Your task to perform on an android device: clear all cookies in the chrome app Image 0: 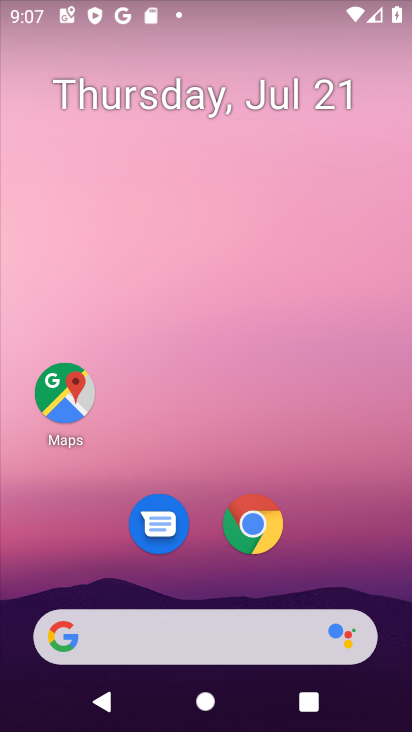
Step 0: press home button
Your task to perform on an android device: clear all cookies in the chrome app Image 1: 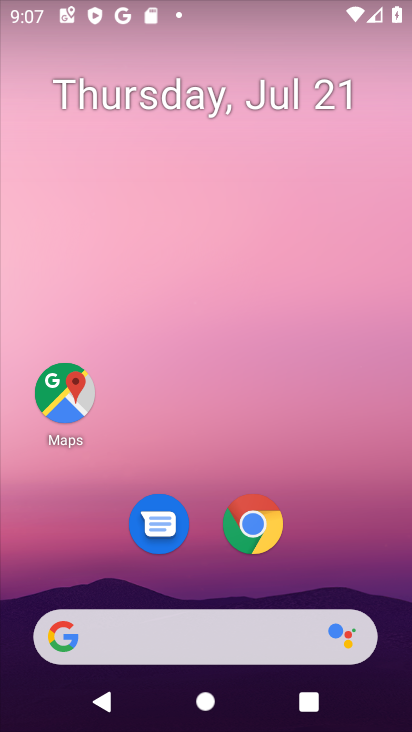
Step 1: click (250, 526)
Your task to perform on an android device: clear all cookies in the chrome app Image 2: 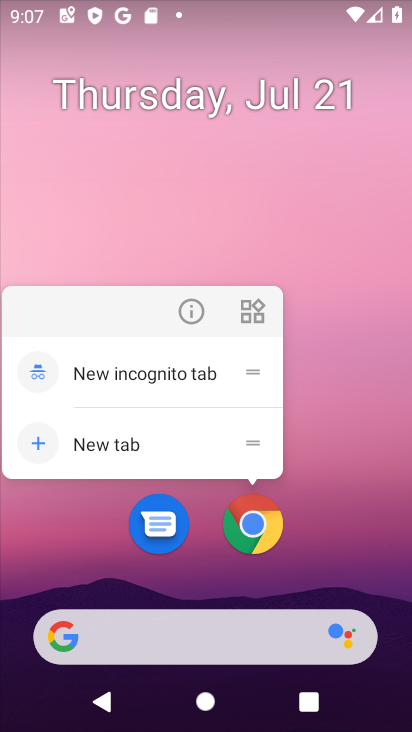
Step 2: click (250, 526)
Your task to perform on an android device: clear all cookies in the chrome app Image 3: 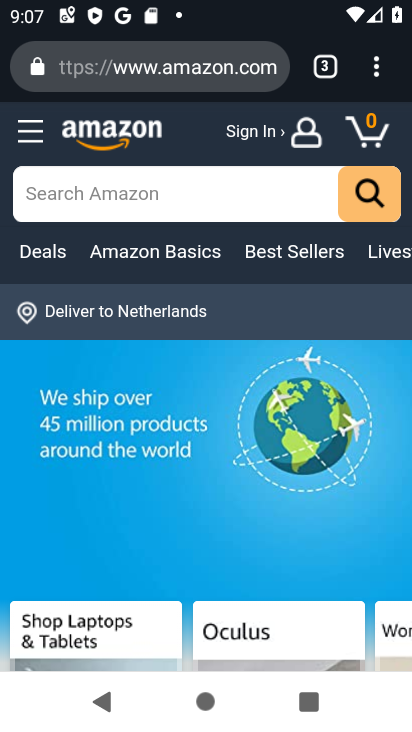
Step 3: drag from (373, 60) to (228, 511)
Your task to perform on an android device: clear all cookies in the chrome app Image 4: 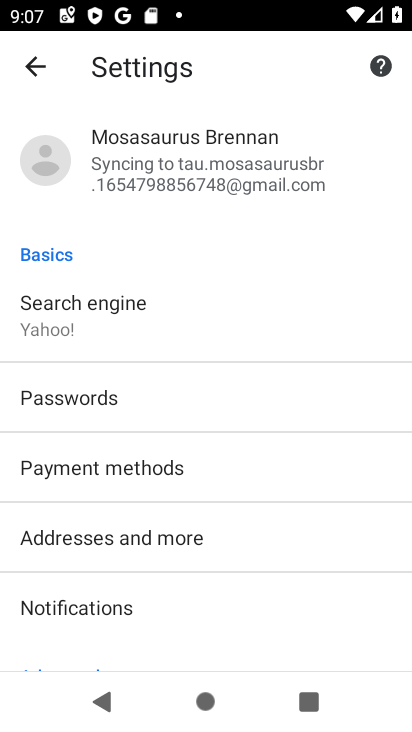
Step 4: drag from (188, 565) to (274, 314)
Your task to perform on an android device: clear all cookies in the chrome app Image 5: 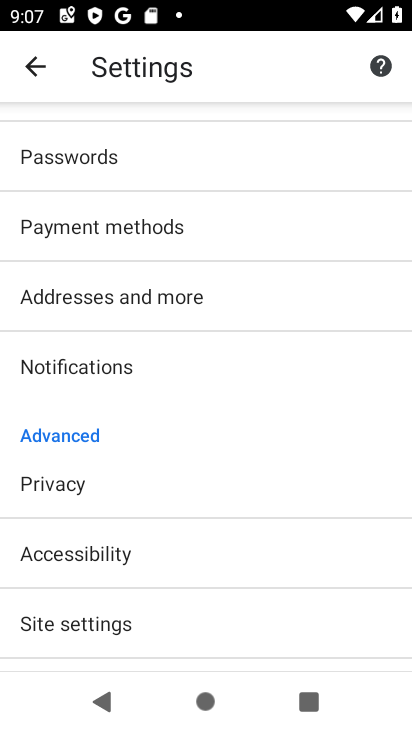
Step 5: click (94, 486)
Your task to perform on an android device: clear all cookies in the chrome app Image 6: 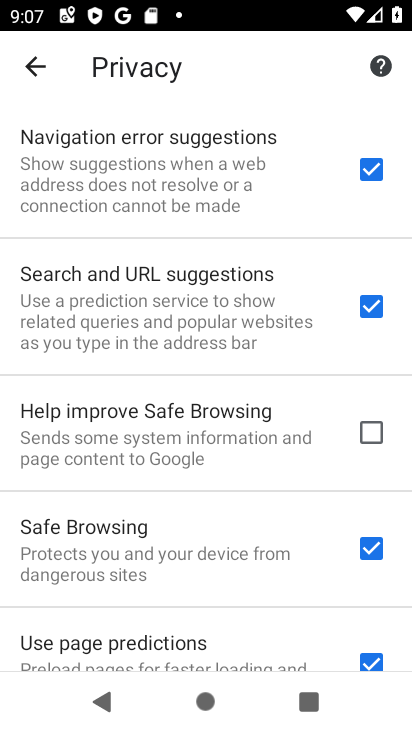
Step 6: drag from (118, 563) to (250, 302)
Your task to perform on an android device: clear all cookies in the chrome app Image 7: 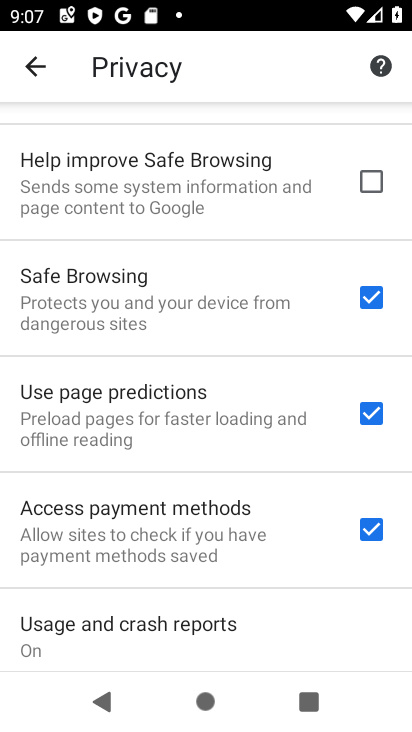
Step 7: drag from (151, 632) to (292, 223)
Your task to perform on an android device: clear all cookies in the chrome app Image 8: 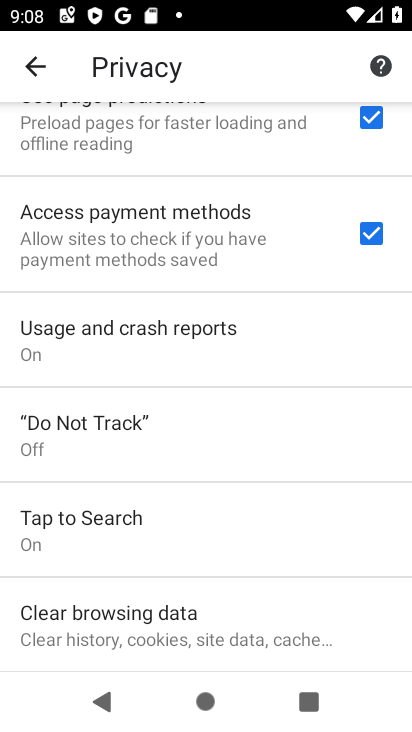
Step 8: click (186, 620)
Your task to perform on an android device: clear all cookies in the chrome app Image 9: 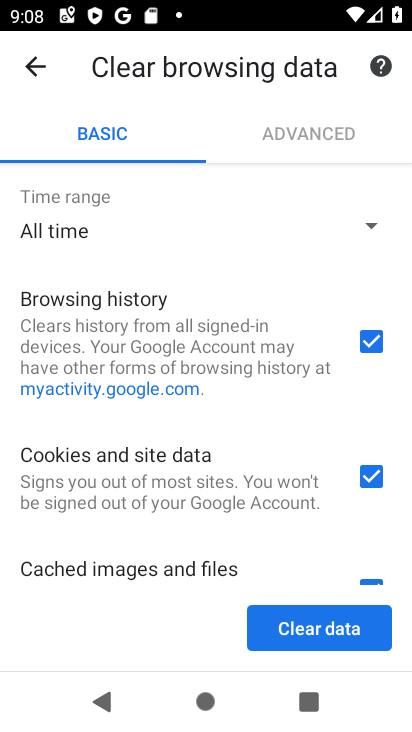
Step 9: drag from (204, 568) to (299, 235)
Your task to perform on an android device: clear all cookies in the chrome app Image 10: 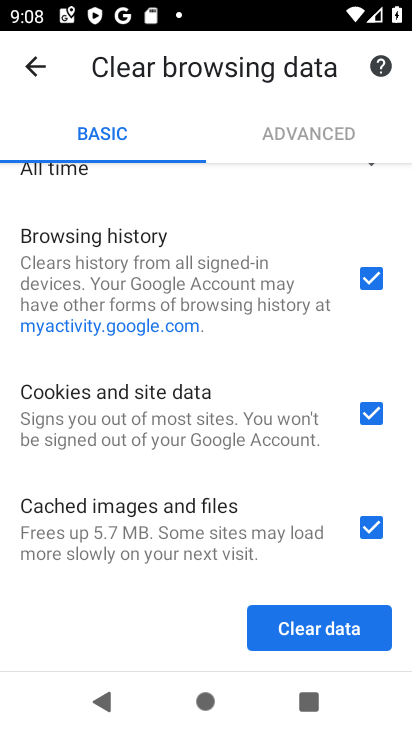
Step 10: drag from (172, 569) to (287, 365)
Your task to perform on an android device: clear all cookies in the chrome app Image 11: 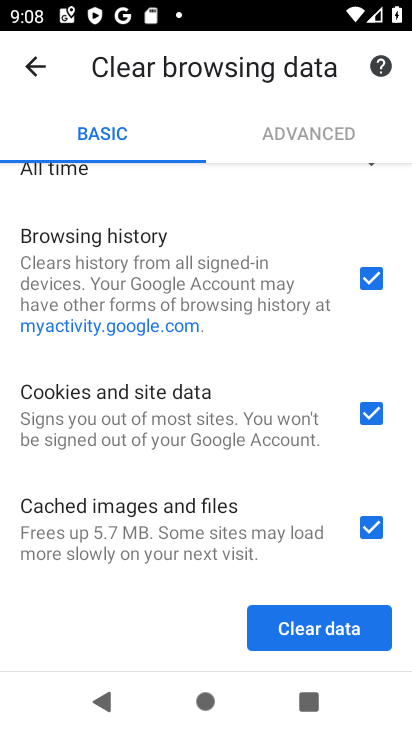
Step 11: click (361, 279)
Your task to perform on an android device: clear all cookies in the chrome app Image 12: 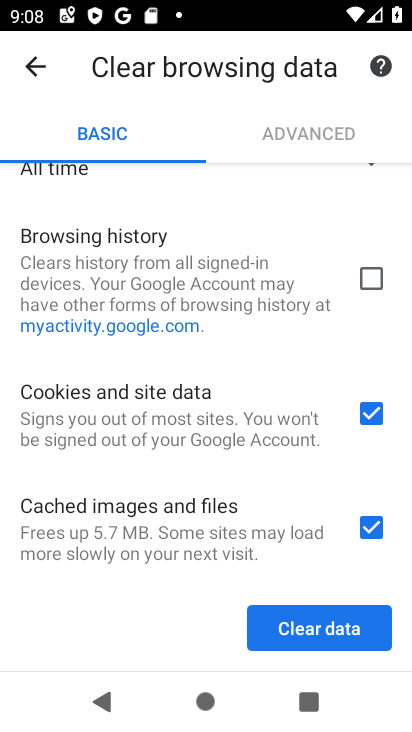
Step 12: click (371, 527)
Your task to perform on an android device: clear all cookies in the chrome app Image 13: 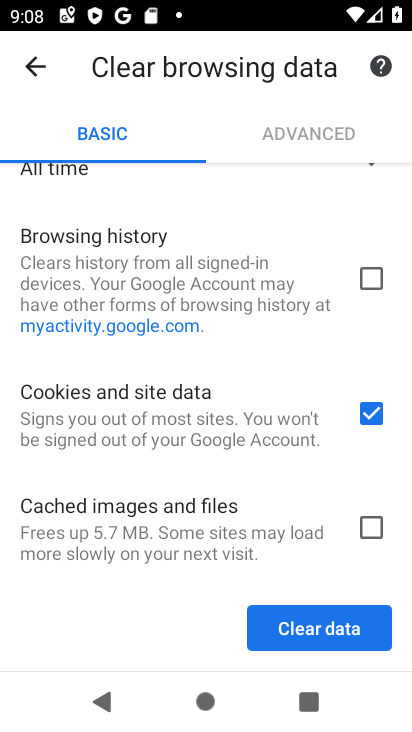
Step 13: click (303, 633)
Your task to perform on an android device: clear all cookies in the chrome app Image 14: 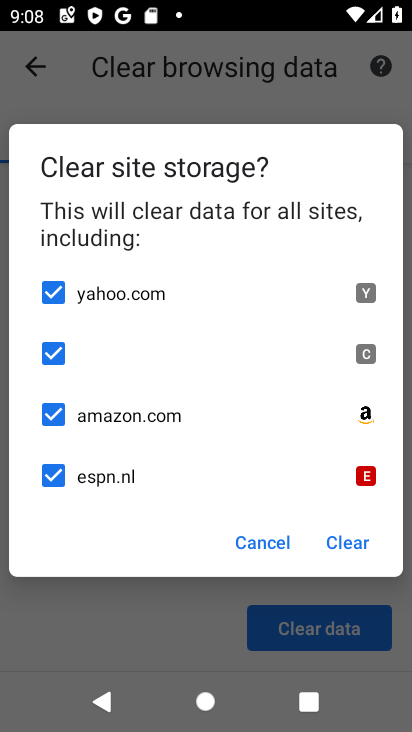
Step 14: click (347, 548)
Your task to perform on an android device: clear all cookies in the chrome app Image 15: 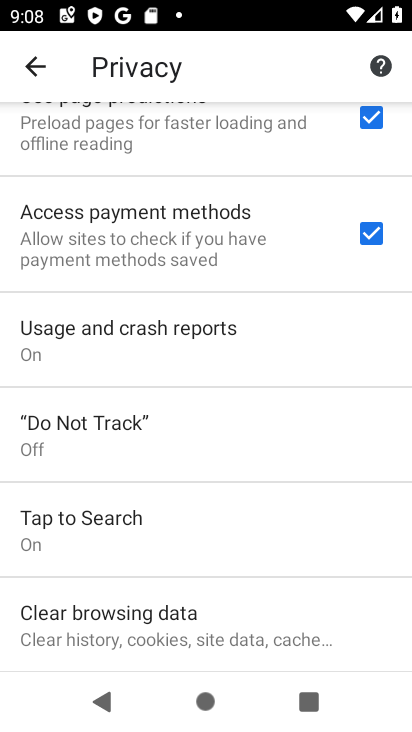
Step 15: task complete